Your task to perform on an android device: turn smart compose on in the gmail app Image 0: 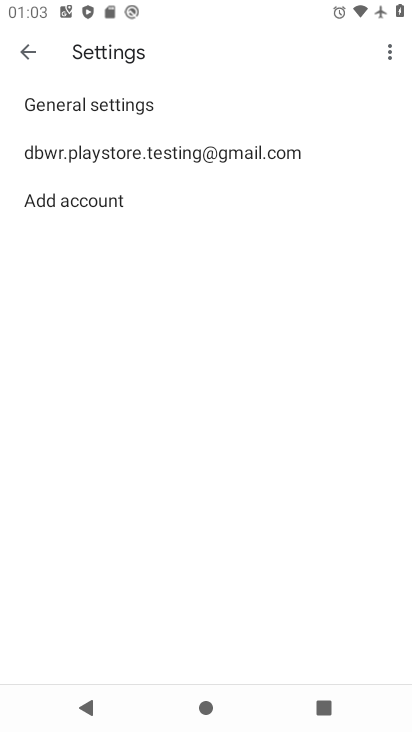
Step 0: press home button
Your task to perform on an android device: turn smart compose on in the gmail app Image 1: 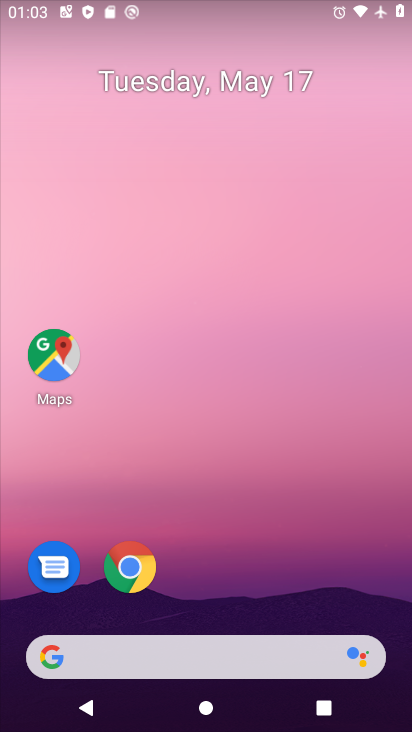
Step 1: drag from (255, 560) to (156, 49)
Your task to perform on an android device: turn smart compose on in the gmail app Image 2: 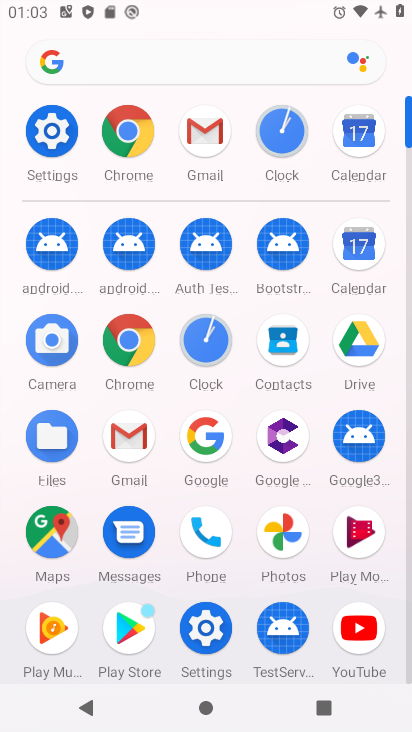
Step 2: click (209, 133)
Your task to perform on an android device: turn smart compose on in the gmail app Image 3: 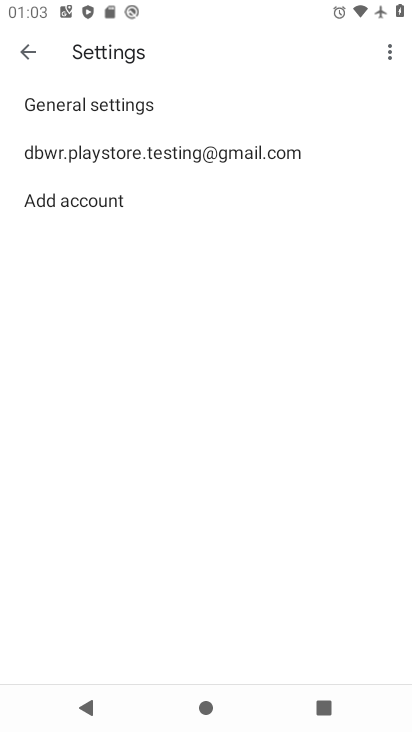
Step 3: click (101, 145)
Your task to perform on an android device: turn smart compose on in the gmail app Image 4: 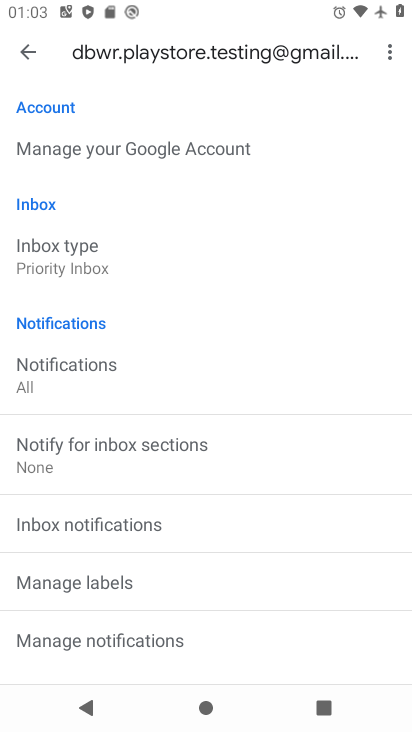
Step 4: task complete